Your task to perform on an android device: Search for "logitech g502" on ebay.com, select the first entry, and add it to the cart. Image 0: 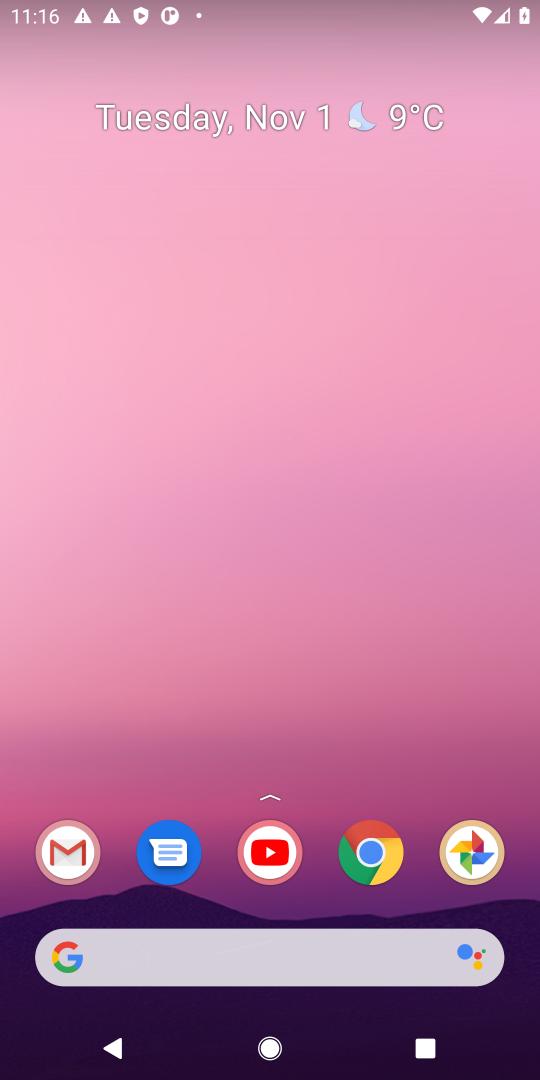
Step 0: drag from (279, 808) to (268, 453)
Your task to perform on an android device: Search for "logitech g502" on ebay.com, select the first entry, and add it to the cart. Image 1: 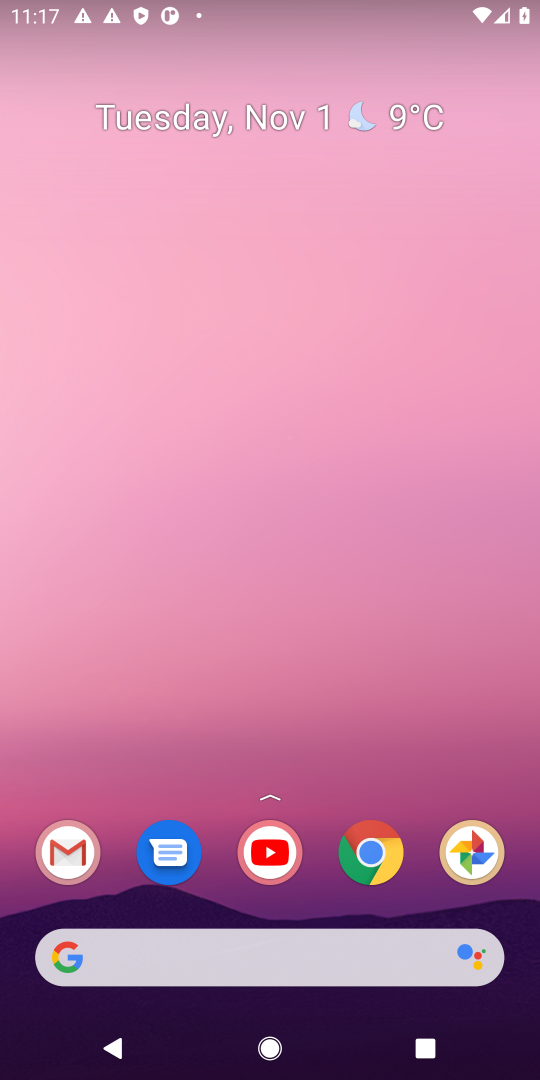
Step 1: drag from (256, 838) to (168, 109)
Your task to perform on an android device: Search for "logitech g502" on ebay.com, select the first entry, and add it to the cart. Image 2: 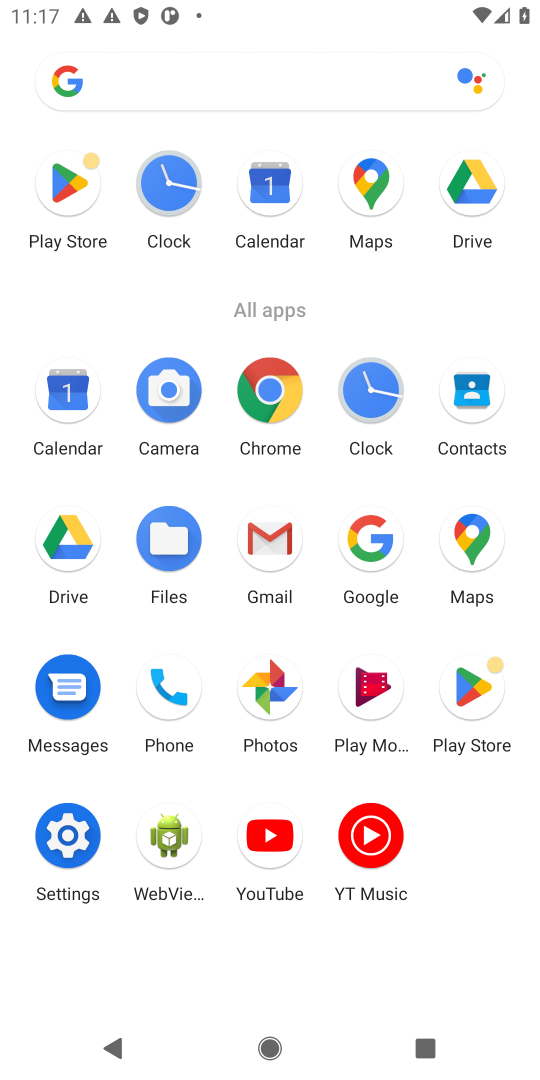
Step 2: click (372, 501)
Your task to perform on an android device: Search for "logitech g502" on ebay.com, select the first entry, and add it to the cart. Image 3: 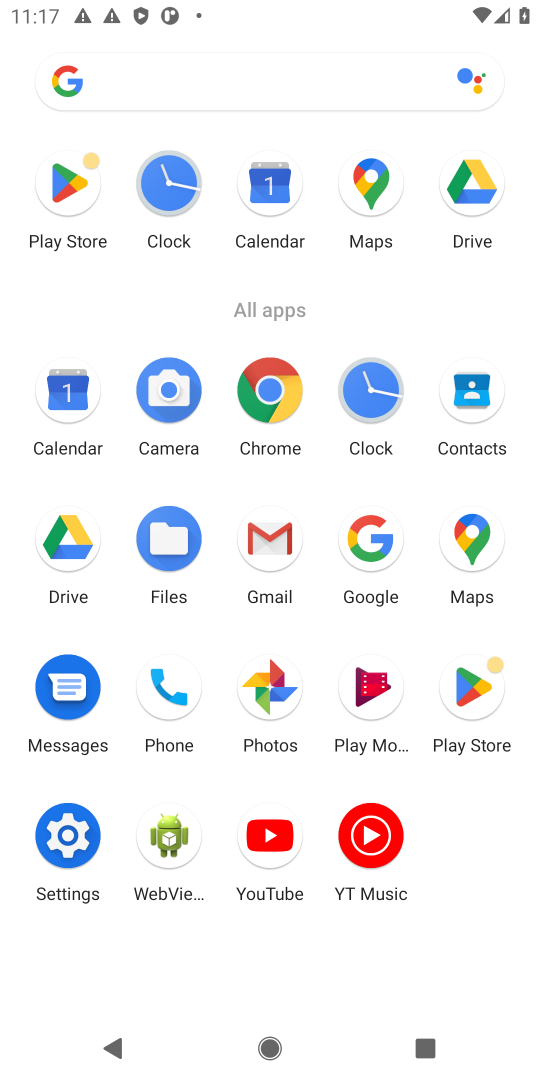
Step 3: click (367, 555)
Your task to perform on an android device: Search for "logitech g502" on ebay.com, select the first entry, and add it to the cart. Image 4: 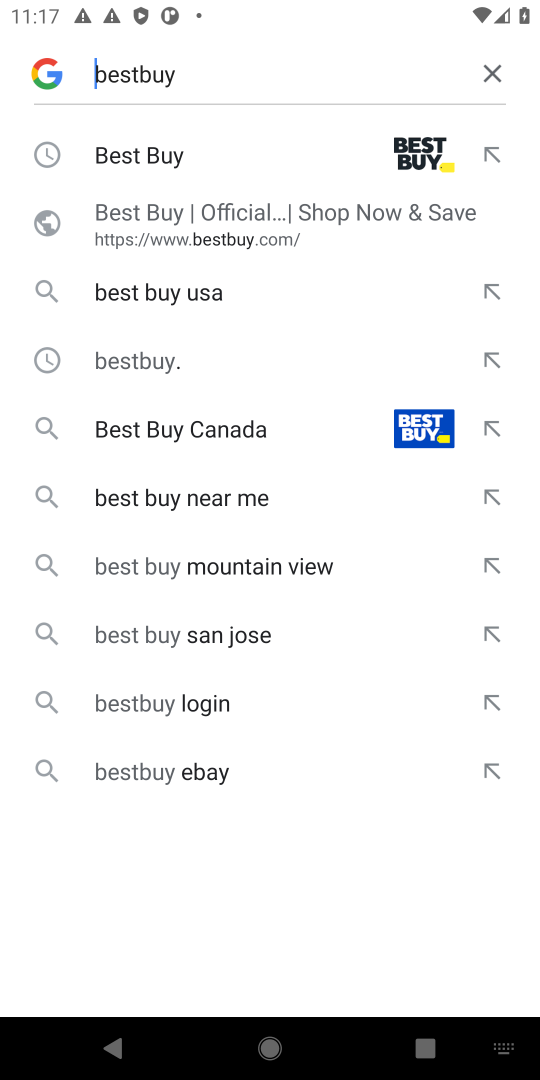
Step 4: click (490, 74)
Your task to perform on an android device: Search for "logitech g502" on ebay.com, select the first entry, and add it to the cart. Image 5: 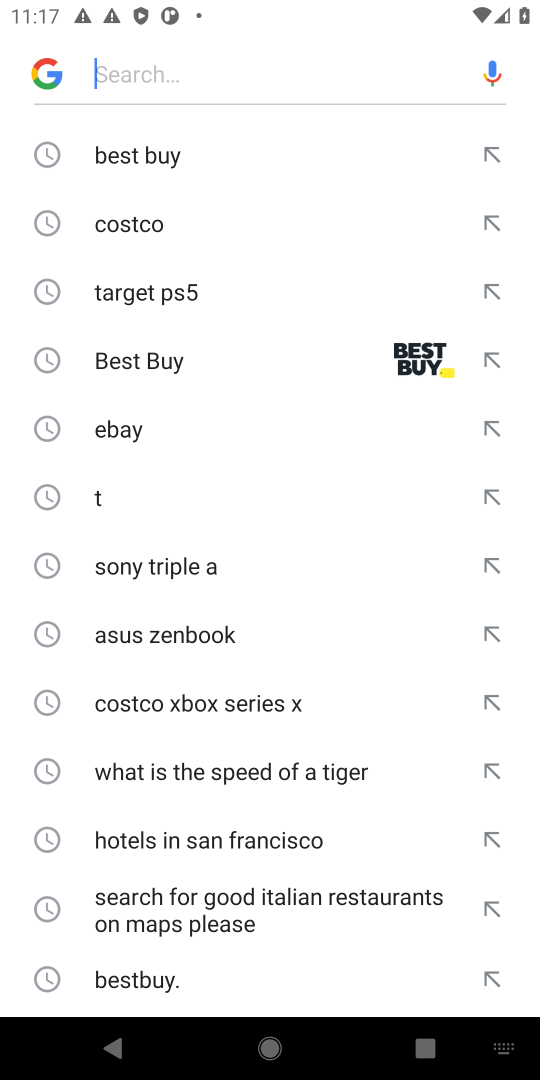
Step 5: type "ebay.com"
Your task to perform on an android device: Search for "logitech g502" on ebay.com, select the first entry, and add it to the cart. Image 6: 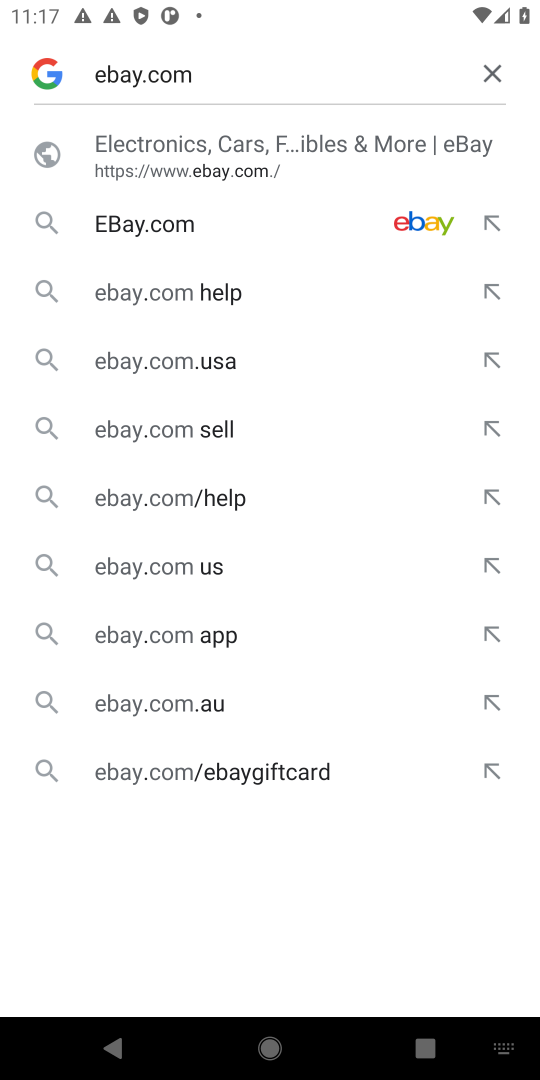
Step 6: click (233, 171)
Your task to perform on an android device: Search for "logitech g502" on ebay.com, select the first entry, and add it to the cart. Image 7: 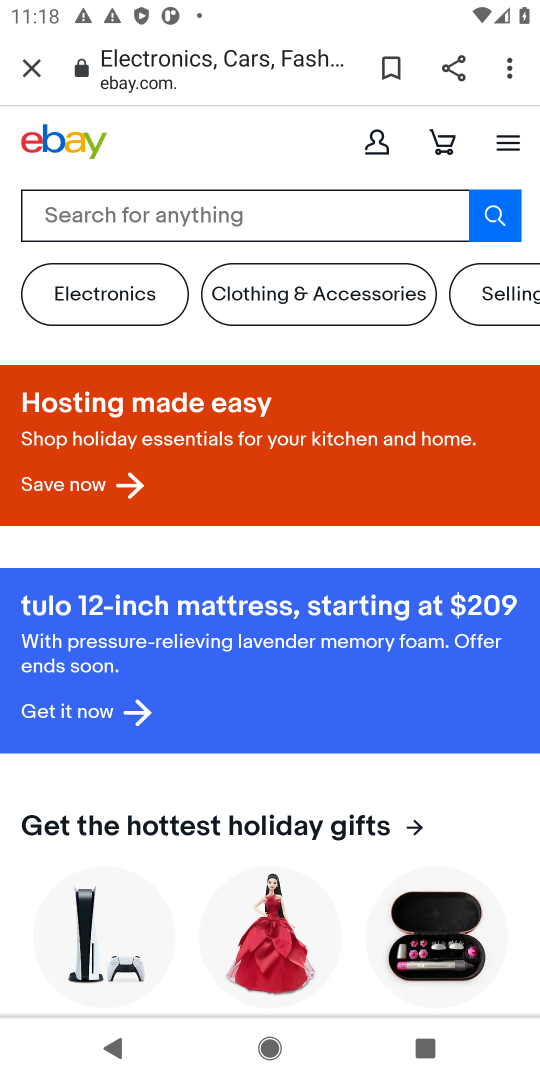
Step 7: click (148, 221)
Your task to perform on an android device: Search for "logitech g502" on ebay.com, select the first entry, and add it to the cart. Image 8: 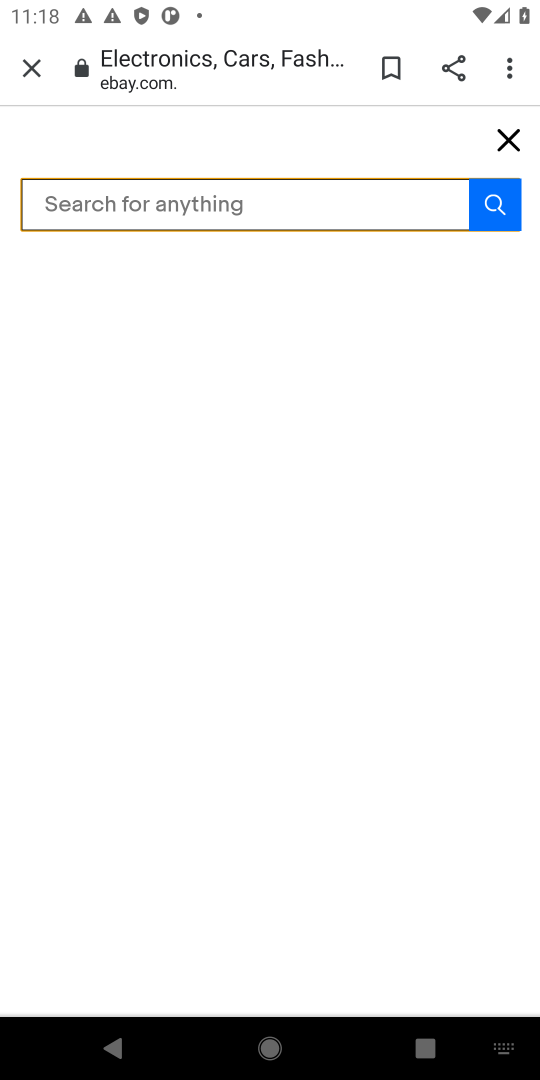
Step 8: type "logitech g502"
Your task to perform on an android device: Search for "logitech g502" on ebay.com, select the first entry, and add it to the cart. Image 9: 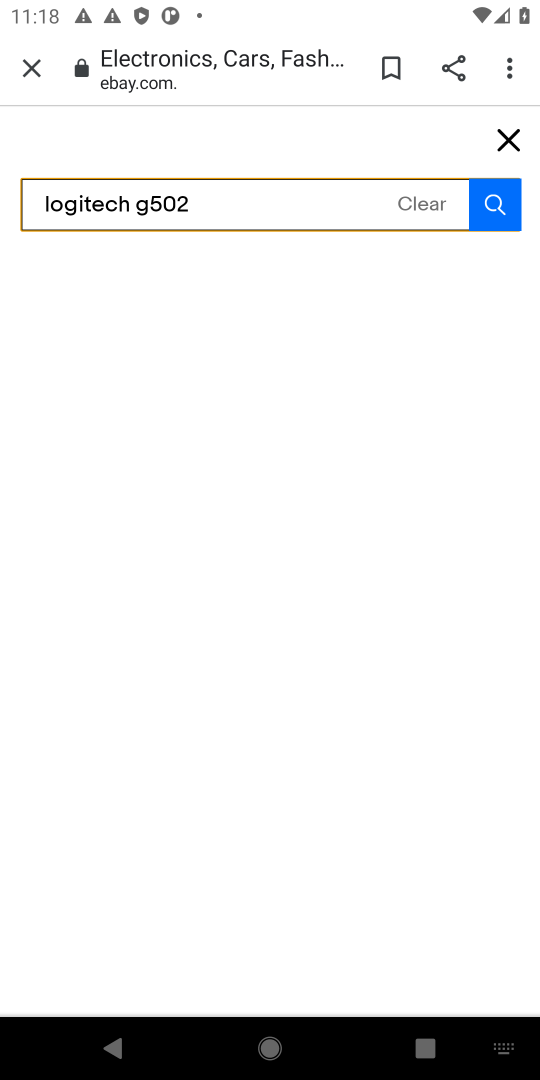
Step 9: click (485, 196)
Your task to perform on an android device: Search for "logitech g502" on ebay.com, select the first entry, and add it to the cart. Image 10: 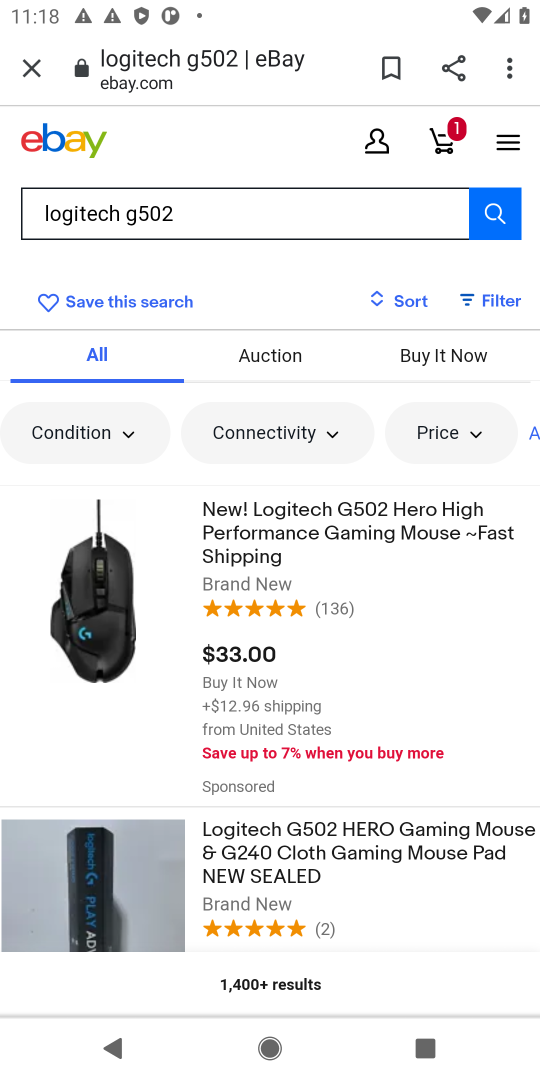
Step 10: click (93, 623)
Your task to perform on an android device: Search for "logitech g502" on ebay.com, select the first entry, and add it to the cart. Image 11: 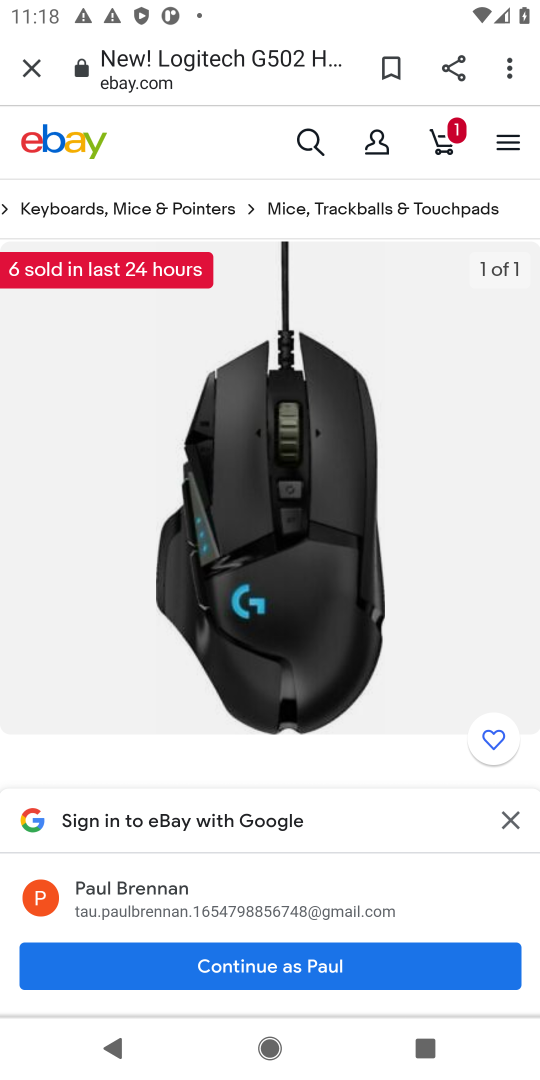
Step 11: click (504, 820)
Your task to perform on an android device: Search for "logitech g502" on ebay.com, select the first entry, and add it to the cart. Image 12: 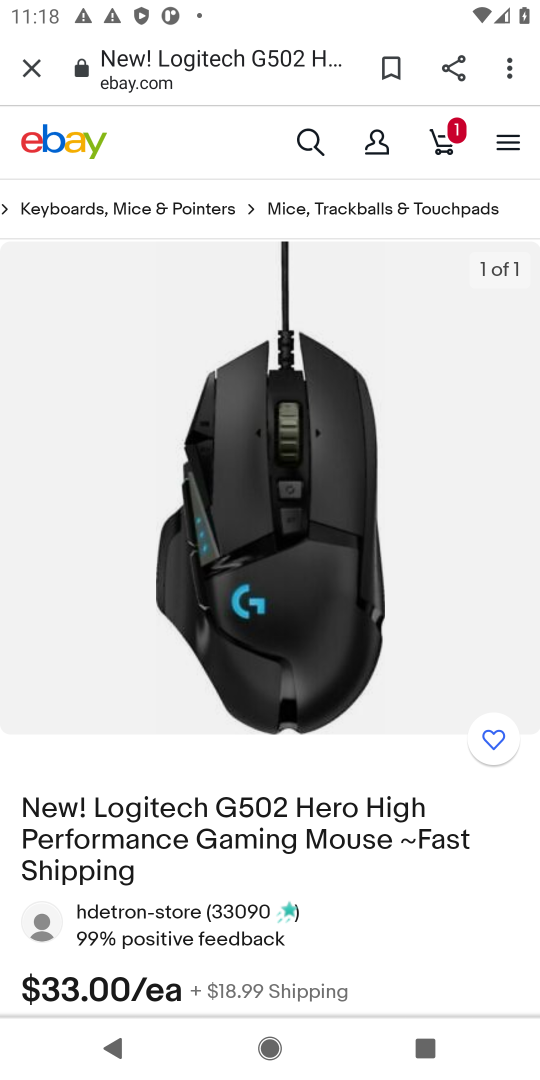
Step 12: drag from (308, 884) to (292, 484)
Your task to perform on an android device: Search for "logitech g502" on ebay.com, select the first entry, and add it to the cart. Image 13: 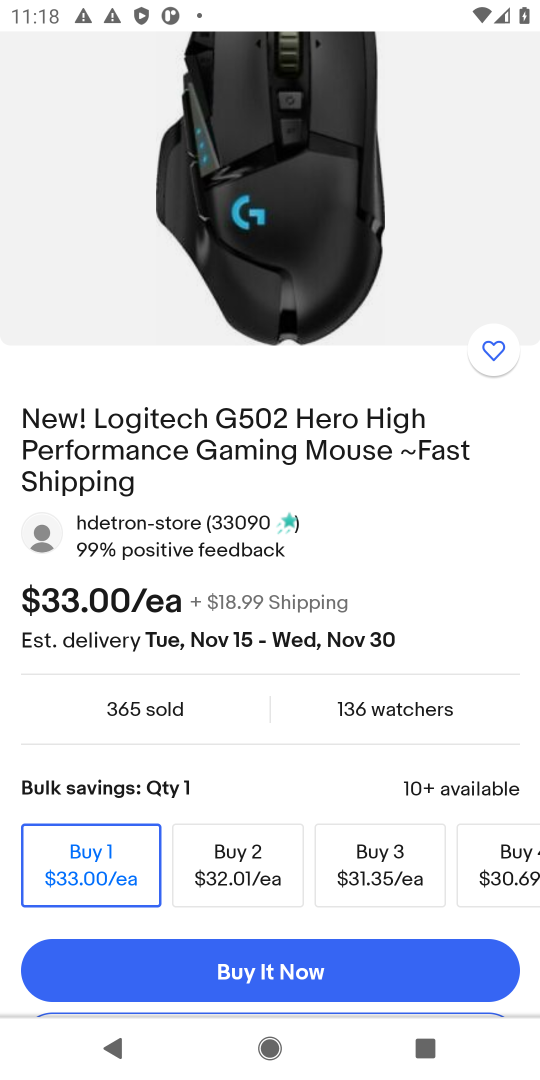
Step 13: drag from (274, 635) to (312, 315)
Your task to perform on an android device: Search for "logitech g502" on ebay.com, select the first entry, and add it to the cart. Image 14: 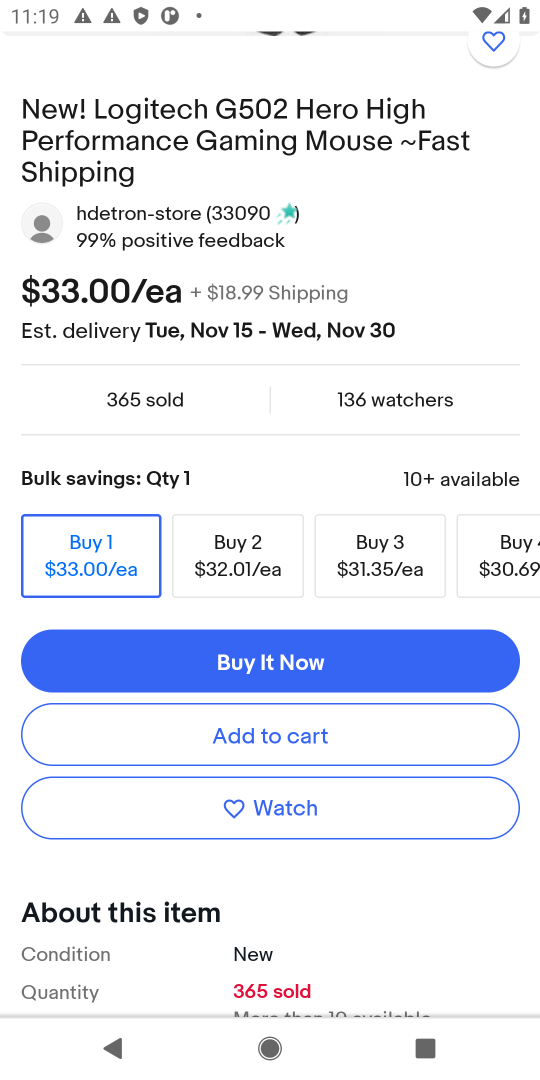
Step 14: click (219, 733)
Your task to perform on an android device: Search for "logitech g502" on ebay.com, select the first entry, and add it to the cart. Image 15: 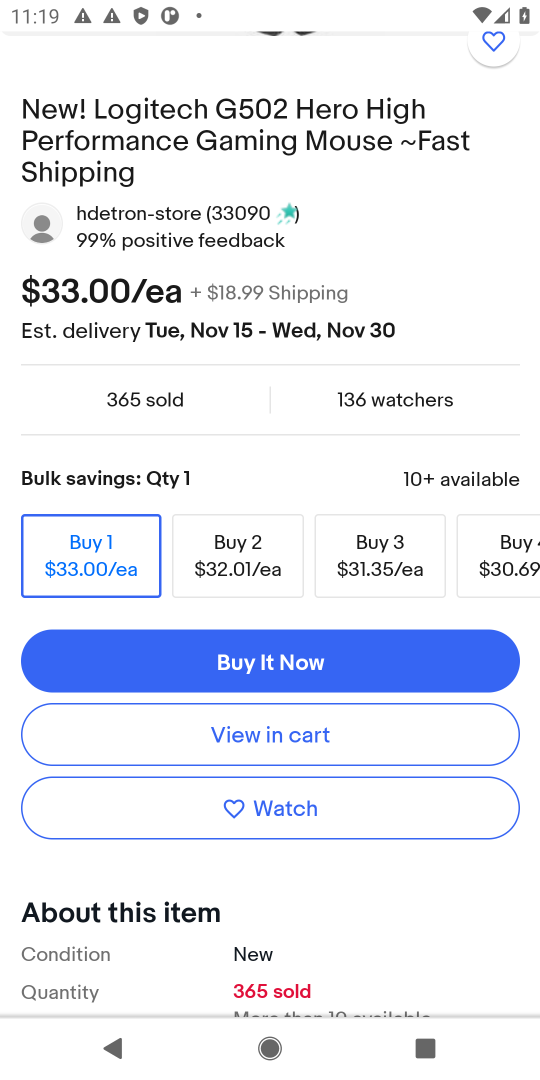
Step 15: task complete